Your task to perform on an android device: set the timer Image 0: 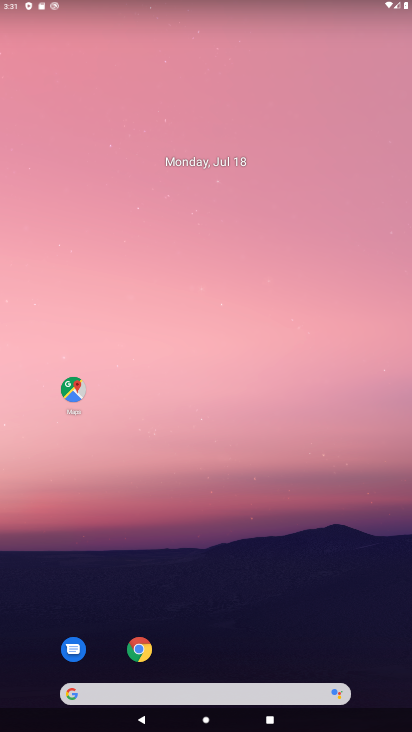
Step 0: press home button
Your task to perform on an android device: set the timer Image 1: 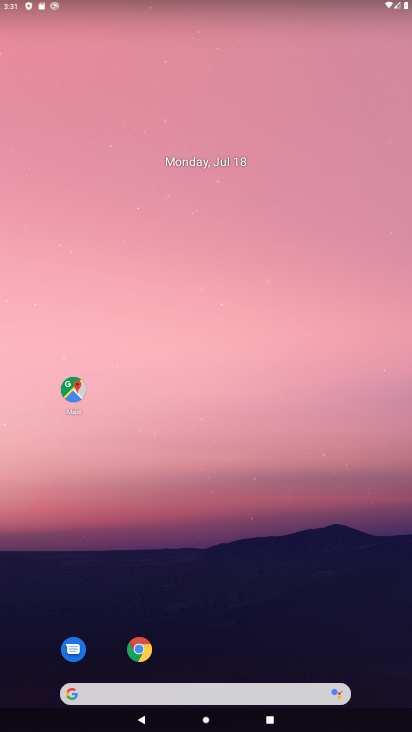
Step 1: drag from (251, 27) to (213, 13)
Your task to perform on an android device: set the timer Image 2: 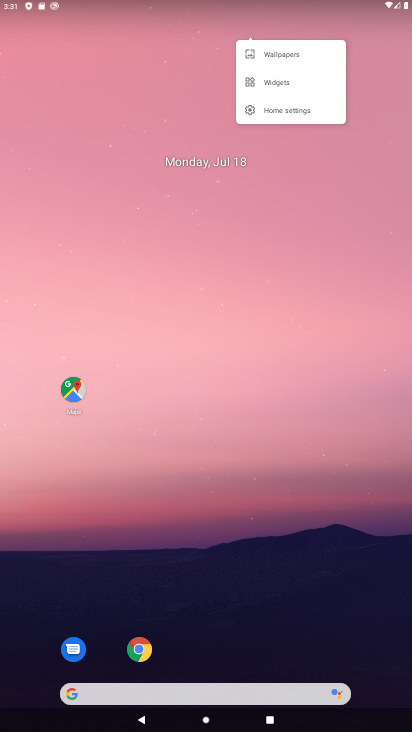
Step 2: drag from (195, 287) to (165, 132)
Your task to perform on an android device: set the timer Image 3: 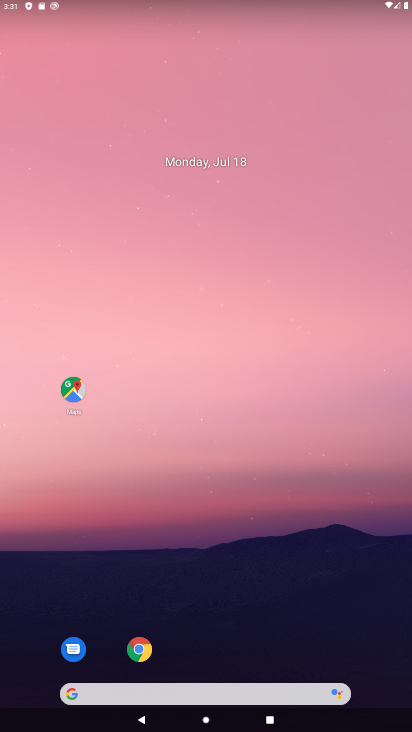
Step 3: drag from (194, 123) to (204, 15)
Your task to perform on an android device: set the timer Image 4: 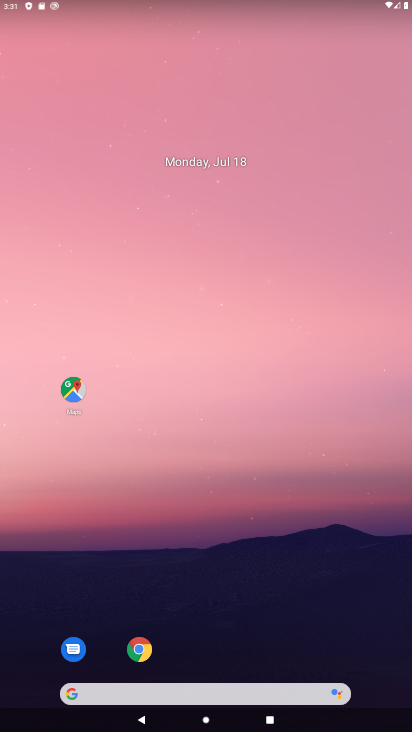
Step 4: drag from (197, 647) to (266, 11)
Your task to perform on an android device: set the timer Image 5: 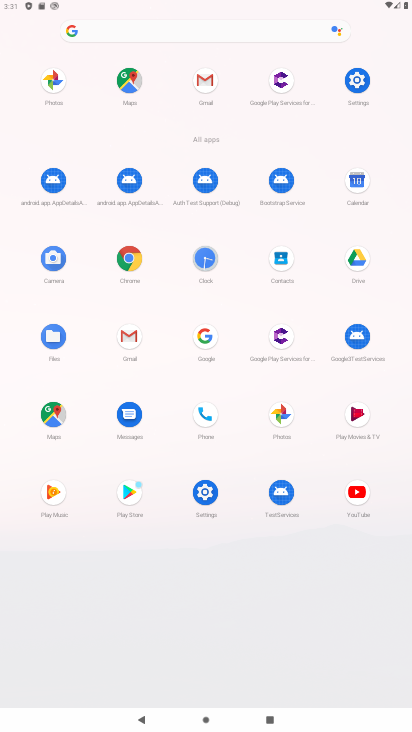
Step 5: click (211, 256)
Your task to perform on an android device: set the timer Image 6: 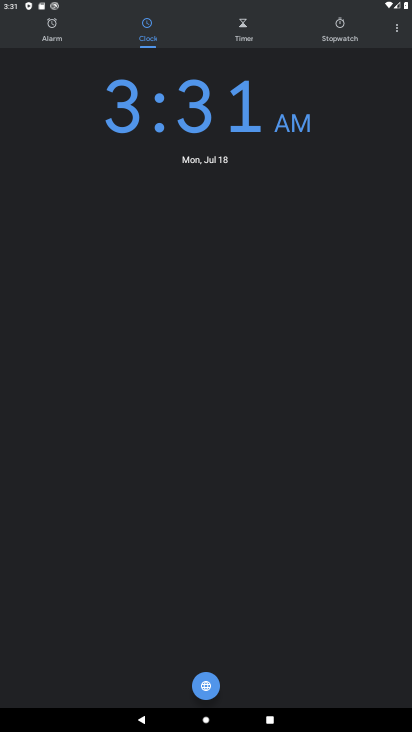
Step 6: click (251, 22)
Your task to perform on an android device: set the timer Image 7: 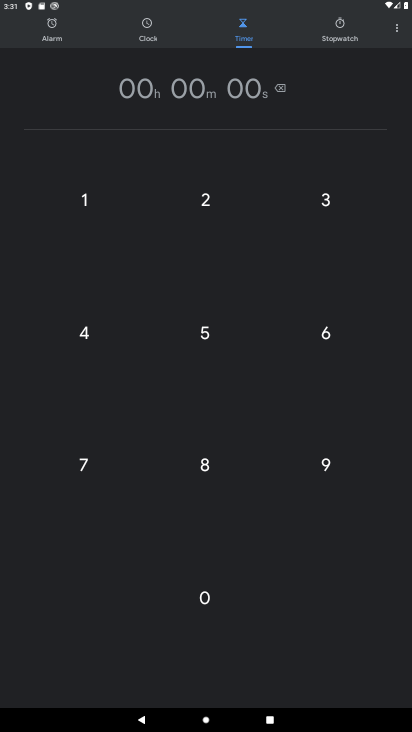
Step 7: click (87, 199)
Your task to perform on an android device: set the timer Image 8: 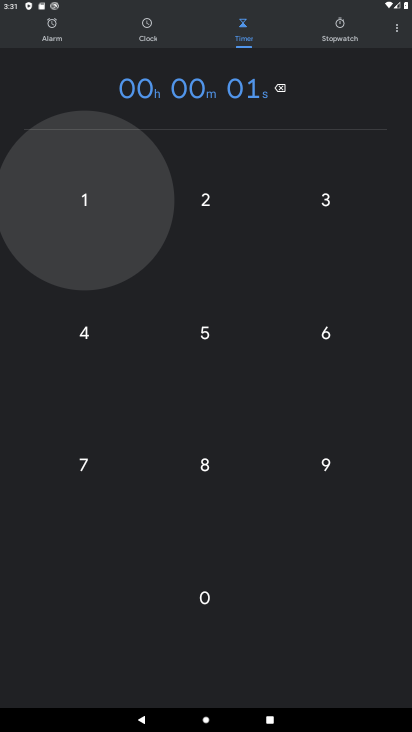
Step 8: click (87, 199)
Your task to perform on an android device: set the timer Image 9: 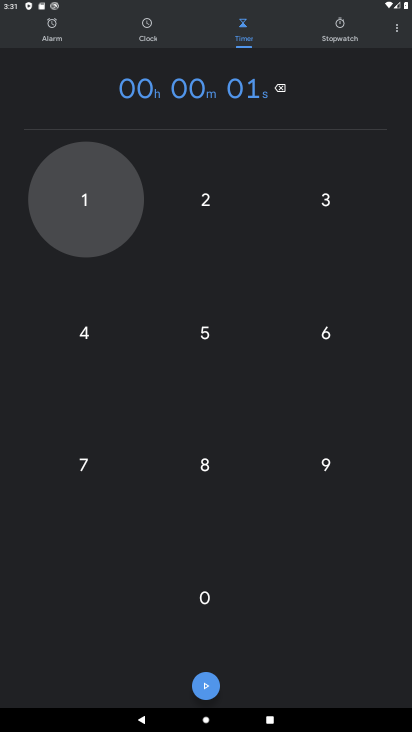
Step 9: click (87, 199)
Your task to perform on an android device: set the timer Image 10: 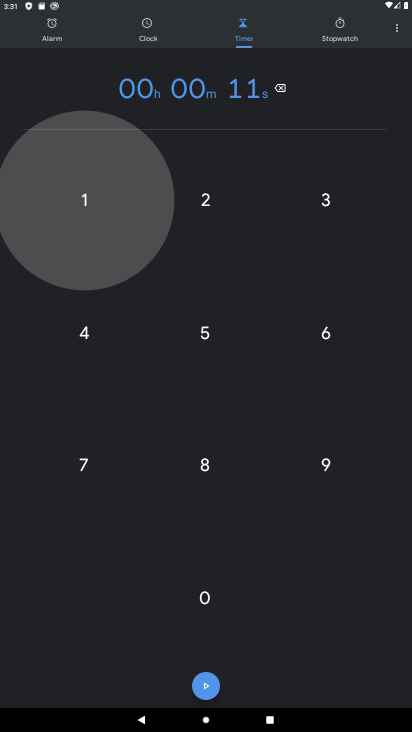
Step 10: click (87, 199)
Your task to perform on an android device: set the timer Image 11: 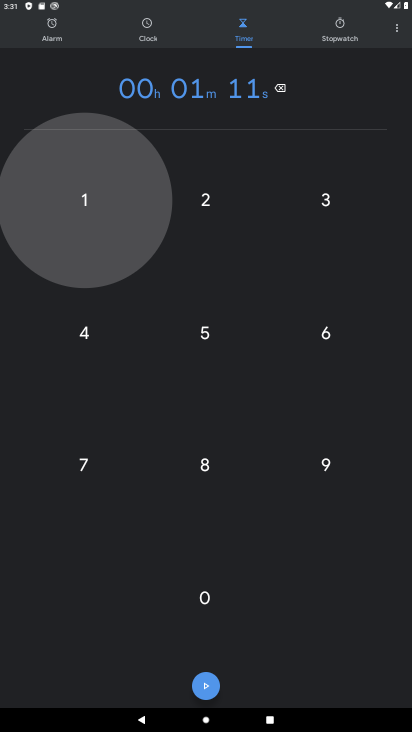
Step 11: click (87, 199)
Your task to perform on an android device: set the timer Image 12: 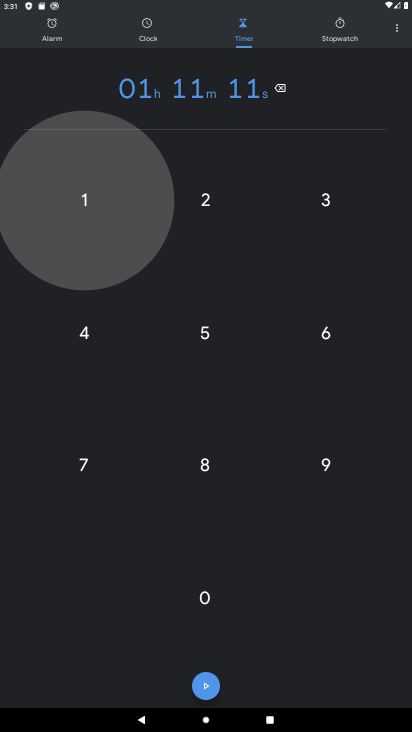
Step 12: click (87, 199)
Your task to perform on an android device: set the timer Image 13: 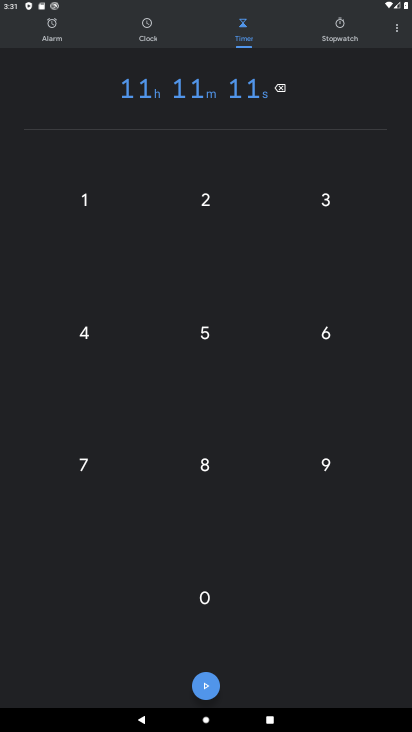
Step 13: click (202, 687)
Your task to perform on an android device: set the timer Image 14: 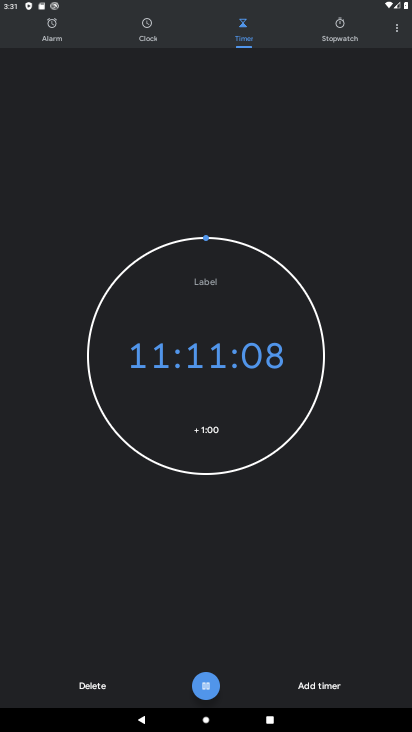
Step 14: task complete